Your task to perform on an android device: Open Google Chrome Image 0: 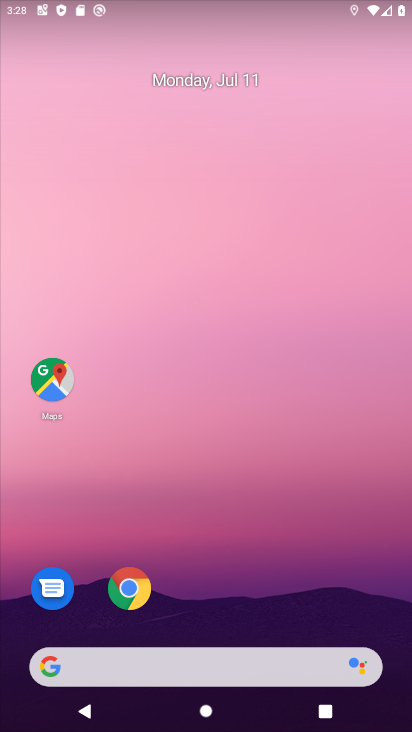
Step 0: click (136, 593)
Your task to perform on an android device: Open Google Chrome Image 1: 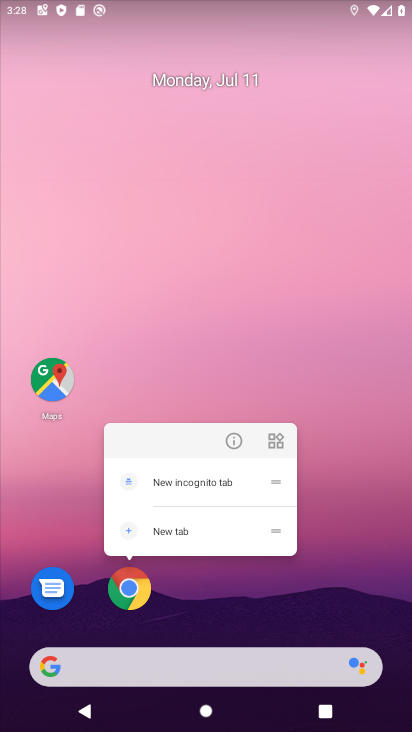
Step 1: click (131, 586)
Your task to perform on an android device: Open Google Chrome Image 2: 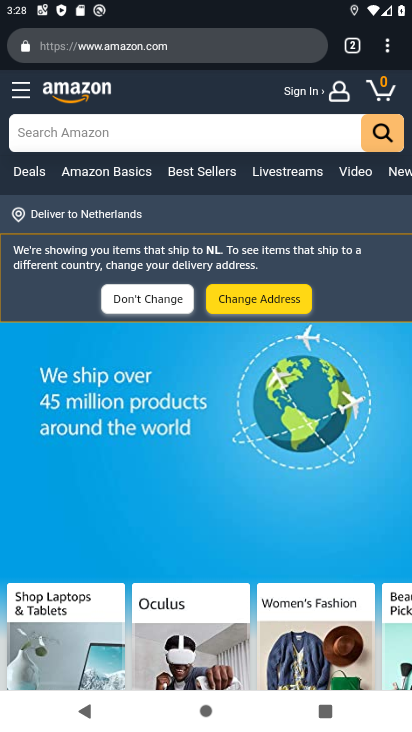
Step 2: task complete